Your task to perform on an android device: Open the calendar app, open the side menu, and click the "Day" option Image 0: 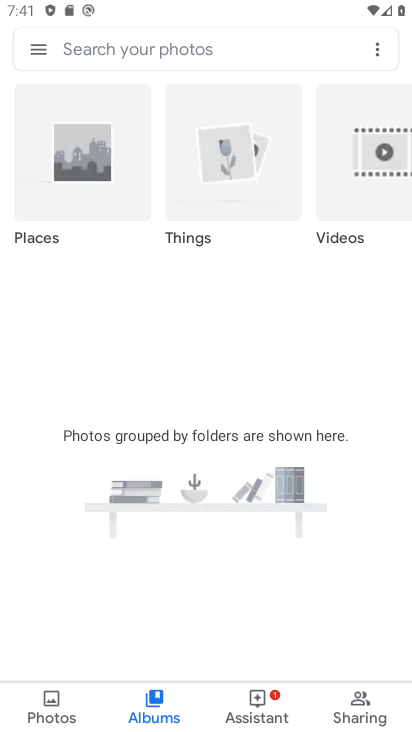
Step 0: press home button
Your task to perform on an android device: Open the calendar app, open the side menu, and click the "Day" option Image 1: 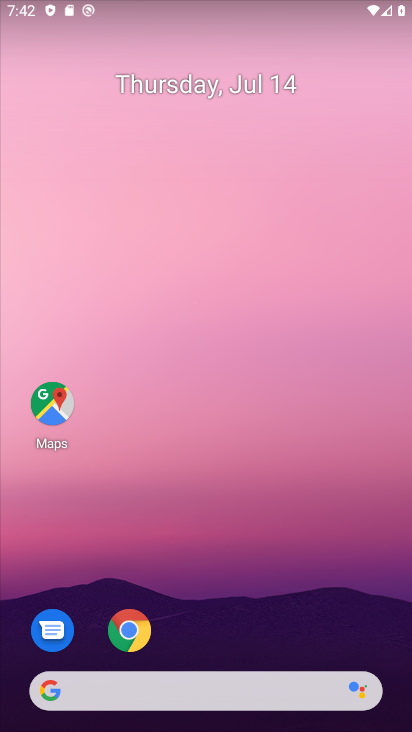
Step 1: drag from (231, 574) to (234, 255)
Your task to perform on an android device: Open the calendar app, open the side menu, and click the "Day" option Image 2: 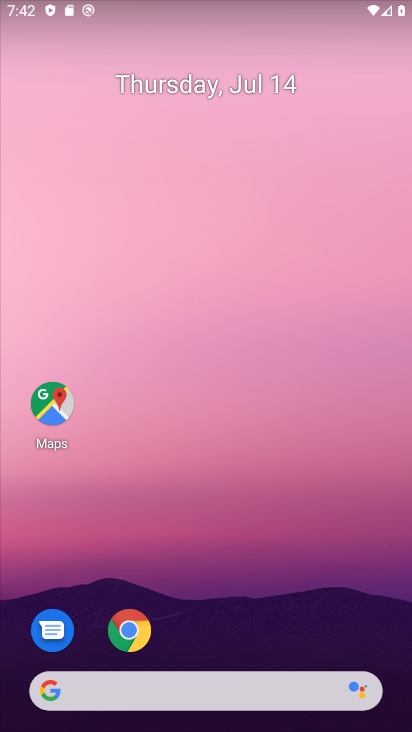
Step 2: drag from (273, 652) to (273, 227)
Your task to perform on an android device: Open the calendar app, open the side menu, and click the "Day" option Image 3: 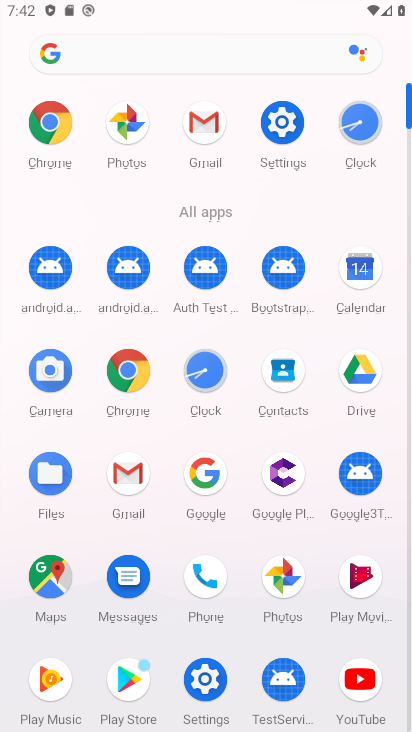
Step 3: click (358, 273)
Your task to perform on an android device: Open the calendar app, open the side menu, and click the "Day" option Image 4: 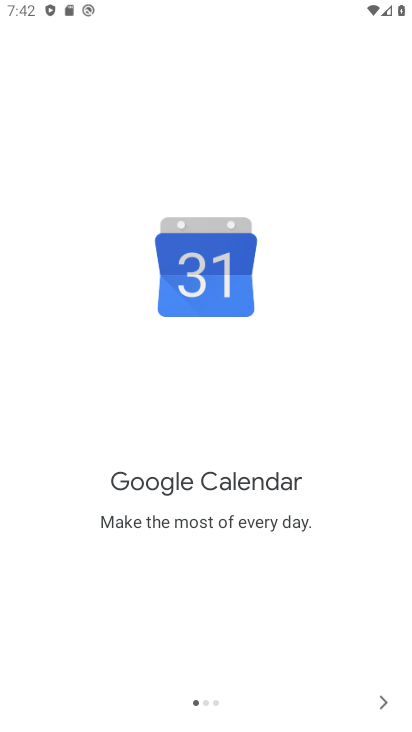
Step 4: click (374, 703)
Your task to perform on an android device: Open the calendar app, open the side menu, and click the "Day" option Image 5: 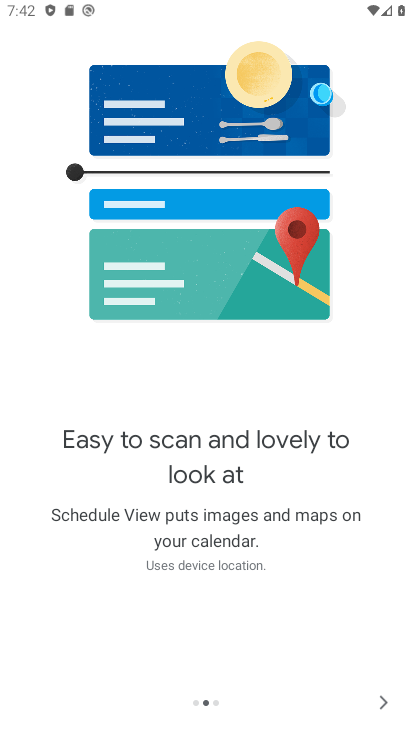
Step 5: click (374, 703)
Your task to perform on an android device: Open the calendar app, open the side menu, and click the "Day" option Image 6: 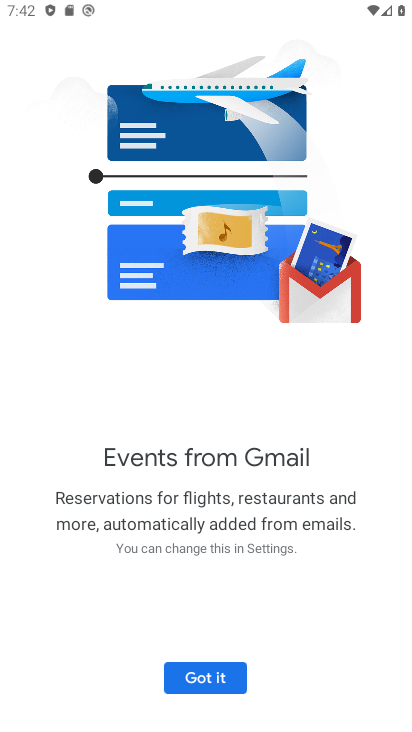
Step 6: click (189, 668)
Your task to perform on an android device: Open the calendar app, open the side menu, and click the "Day" option Image 7: 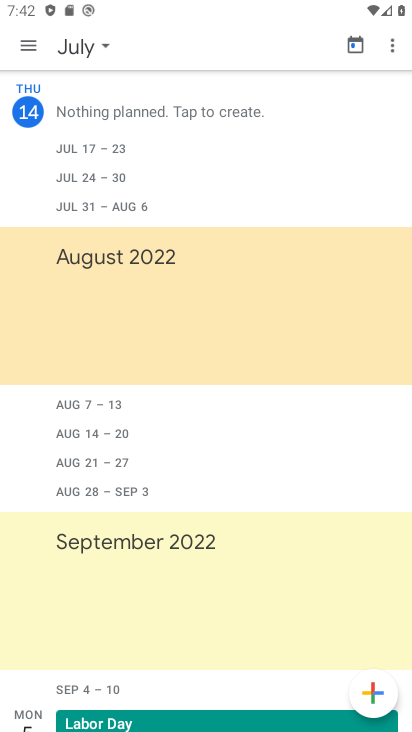
Step 7: click (26, 33)
Your task to perform on an android device: Open the calendar app, open the side menu, and click the "Day" option Image 8: 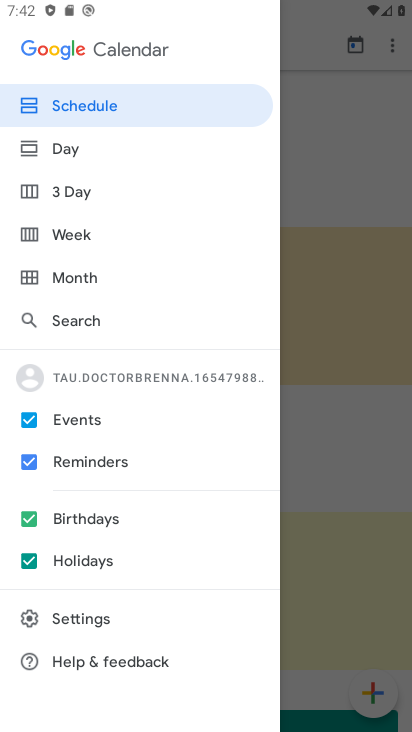
Step 8: click (78, 138)
Your task to perform on an android device: Open the calendar app, open the side menu, and click the "Day" option Image 9: 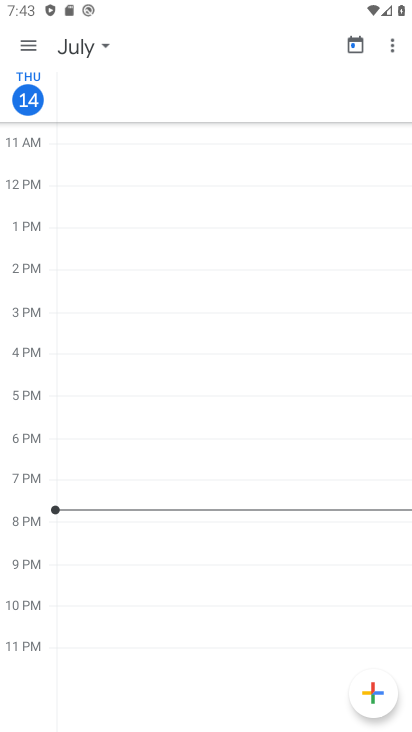
Step 9: task complete